Your task to perform on an android device: check google app version Image 0: 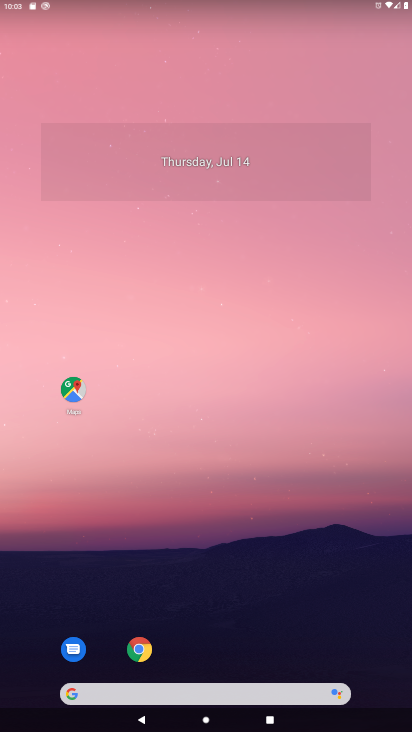
Step 0: drag from (232, 721) to (321, 0)
Your task to perform on an android device: check google app version Image 1: 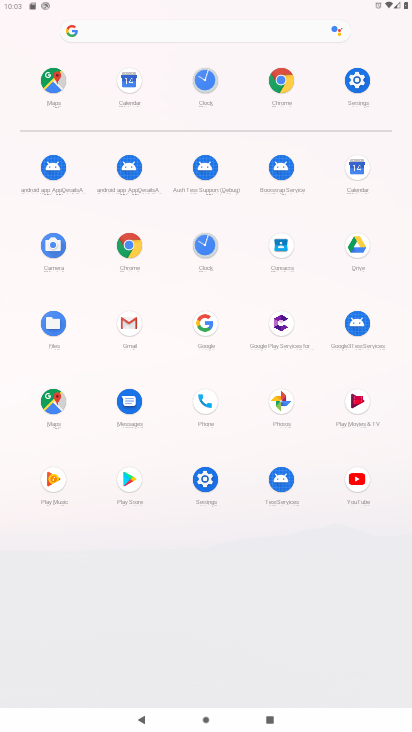
Step 1: click (205, 325)
Your task to perform on an android device: check google app version Image 2: 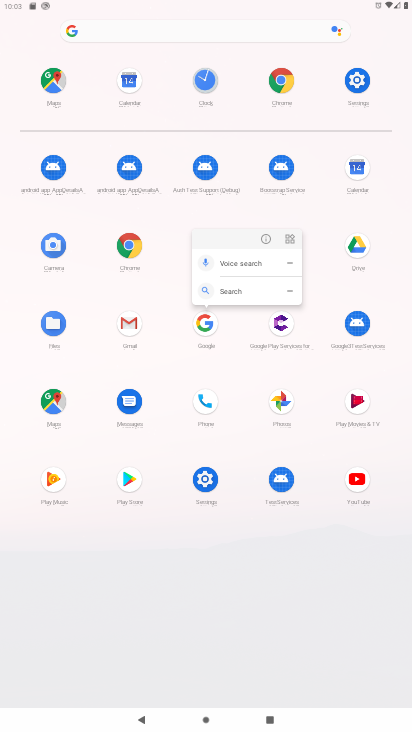
Step 2: click (266, 235)
Your task to perform on an android device: check google app version Image 3: 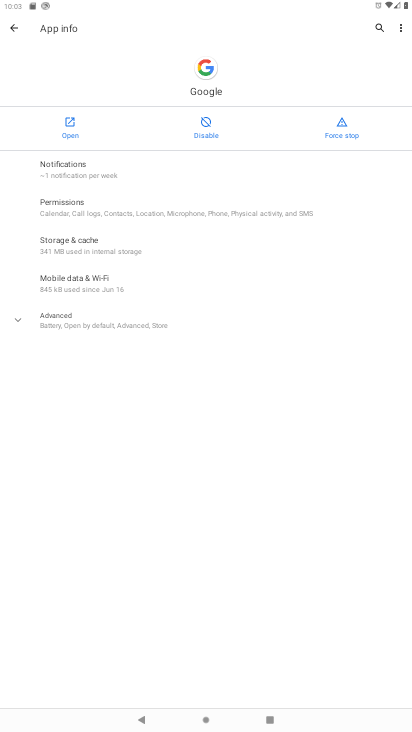
Step 3: click (177, 179)
Your task to perform on an android device: check google app version Image 4: 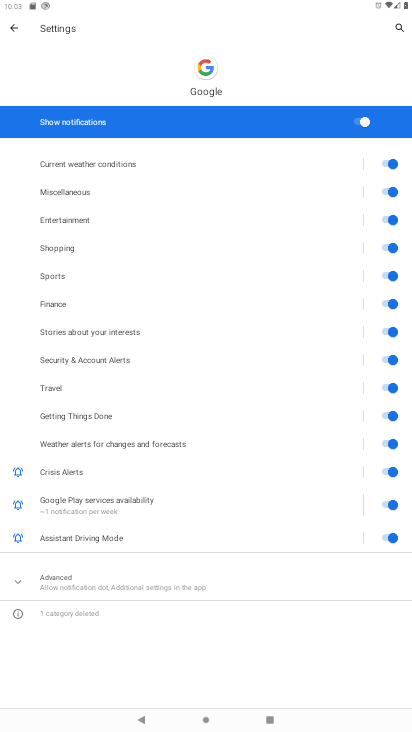
Step 4: click (65, 578)
Your task to perform on an android device: check google app version Image 5: 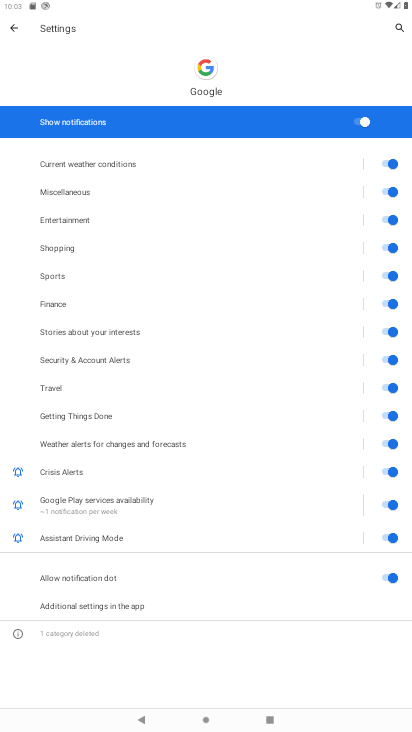
Step 5: drag from (224, 659) to (307, 69)
Your task to perform on an android device: check google app version Image 6: 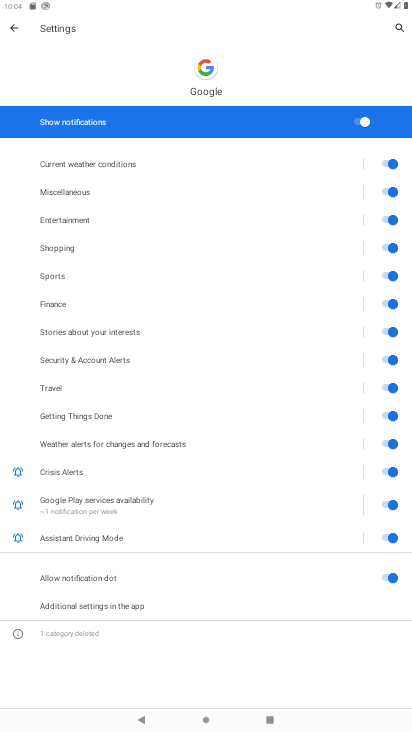
Step 6: click (12, 28)
Your task to perform on an android device: check google app version Image 7: 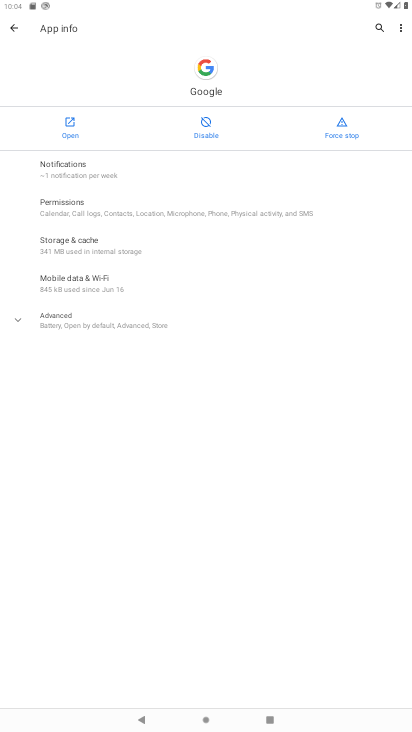
Step 7: click (77, 323)
Your task to perform on an android device: check google app version Image 8: 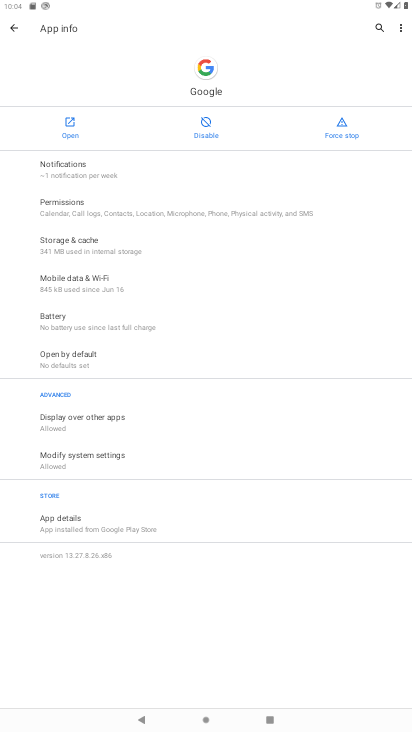
Step 8: task complete